Your task to perform on an android device: What is the news today? Image 0: 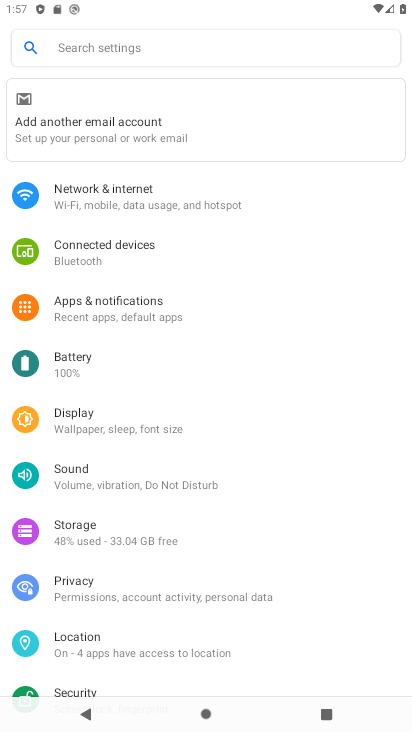
Step 0: press home button
Your task to perform on an android device: What is the news today? Image 1: 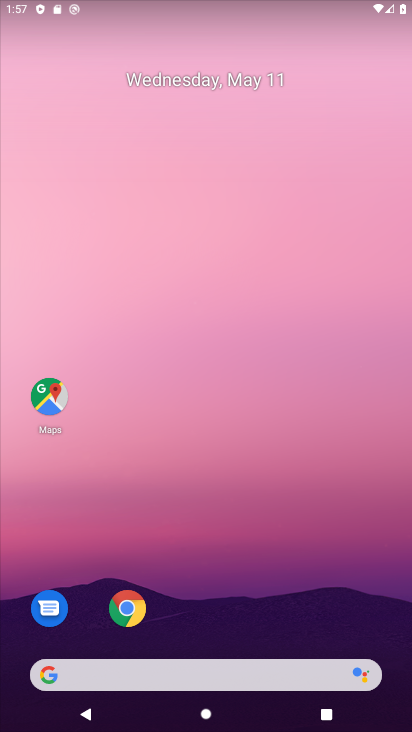
Step 1: task complete